Your task to perform on an android device: Check the news Image 0: 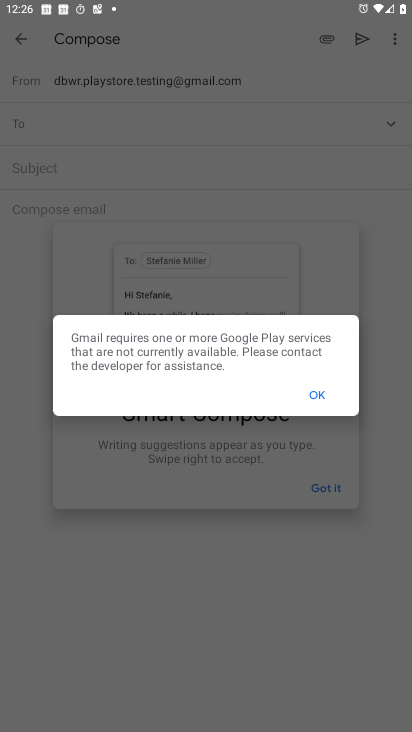
Step 0: press home button
Your task to perform on an android device: Check the news Image 1: 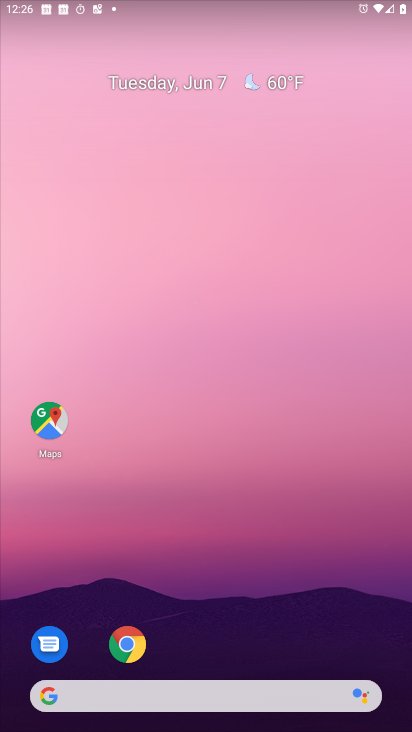
Step 1: click (201, 694)
Your task to perform on an android device: Check the news Image 2: 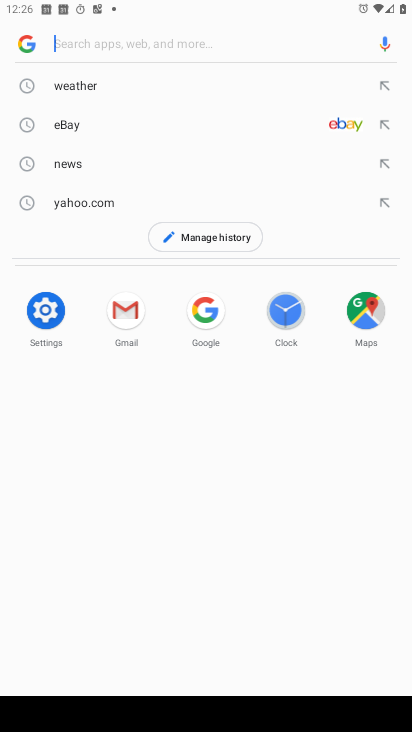
Step 2: click (90, 170)
Your task to perform on an android device: Check the news Image 3: 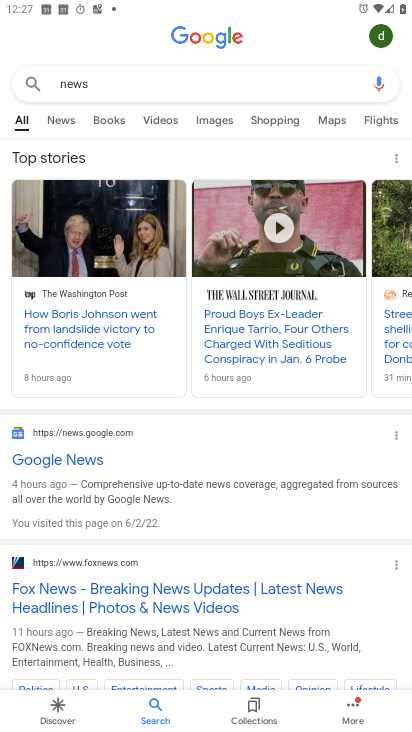
Step 3: task complete